Your task to perform on an android device: turn on wifi Image 0: 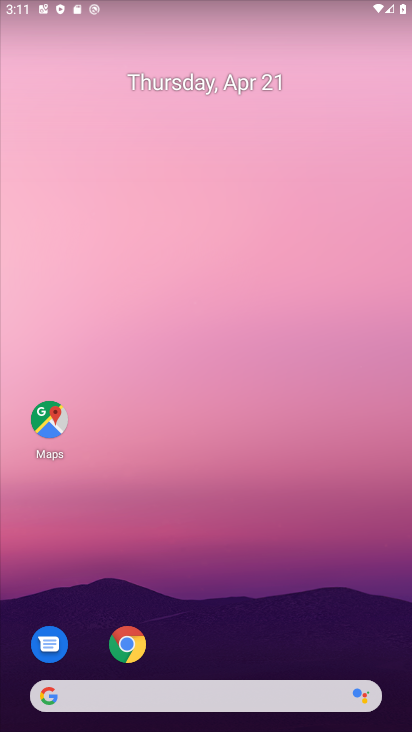
Step 0: drag from (238, 651) to (324, 43)
Your task to perform on an android device: turn on wifi Image 1: 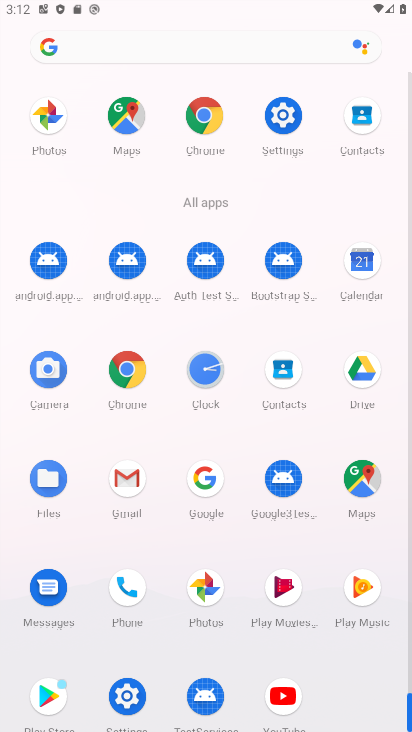
Step 1: click (280, 105)
Your task to perform on an android device: turn on wifi Image 2: 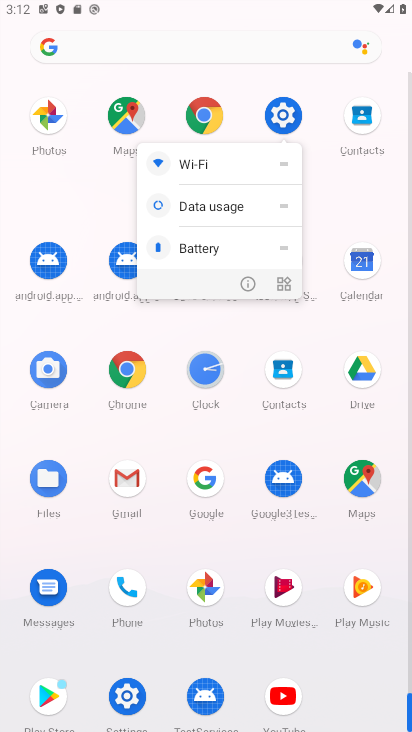
Step 2: click (286, 105)
Your task to perform on an android device: turn on wifi Image 3: 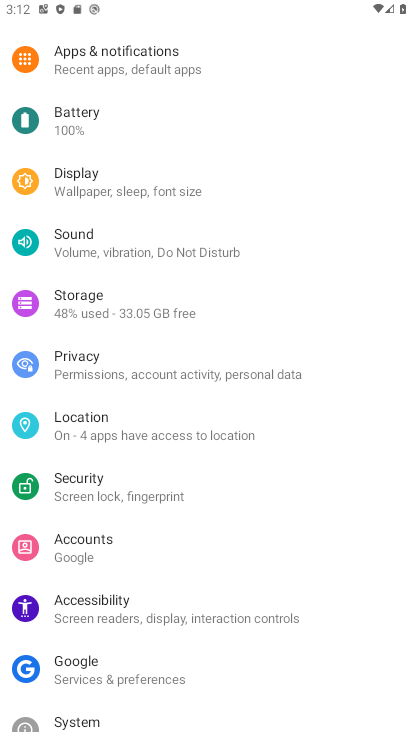
Step 3: drag from (256, 64) to (150, 464)
Your task to perform on an android device: turn on wifi Image 4: 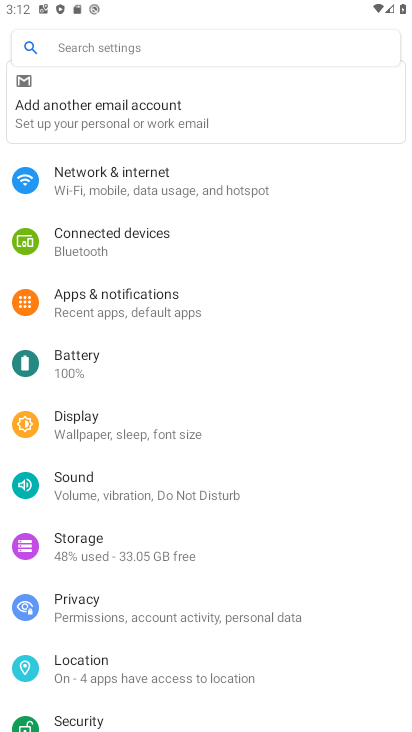
Step 4: click (132, 190)
Your task to perform on an android device: turn on wifi Image 5: 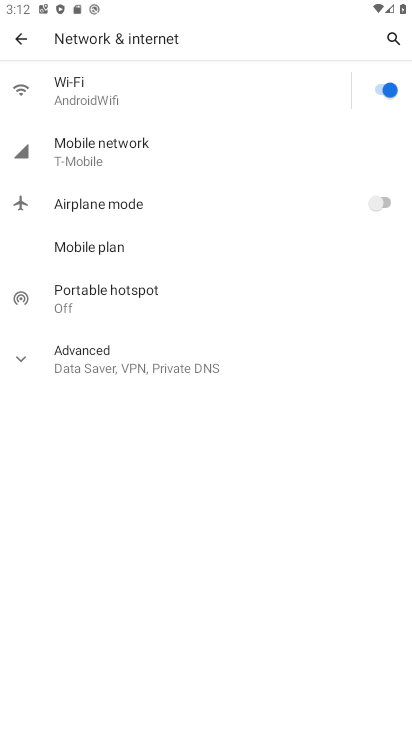
Step 5: task complete